Your task to perform on an android device: Open display settings Image 0: 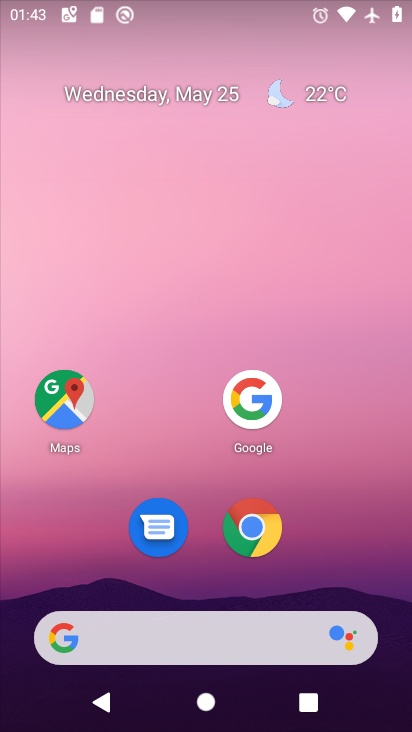
Step 0: press home button
Your task to perform on an android device: Open display settings Image 1: 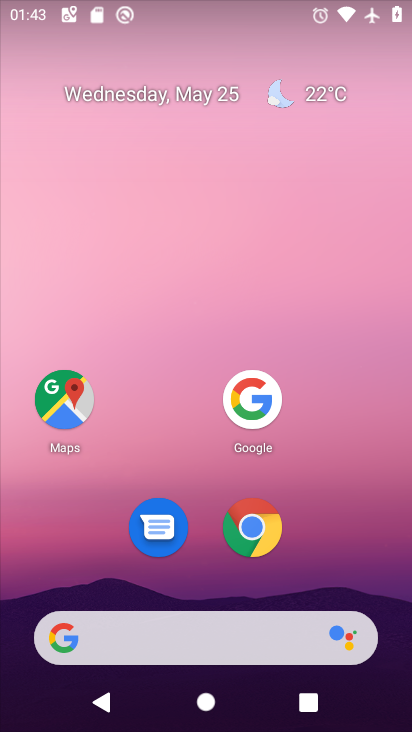
Step 1: drag from (185, 622) to (321, 148)
Your task to perform on an android device: Open display settings Image 2: 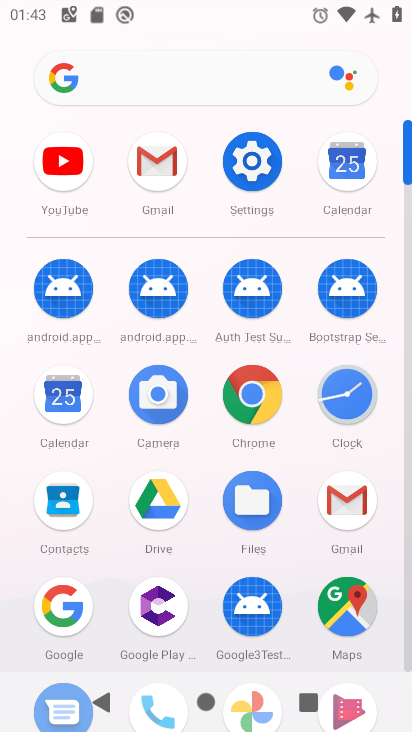
Step 2: click (260, 175)
Your task to perform on an android device: Open display settings Image 3: 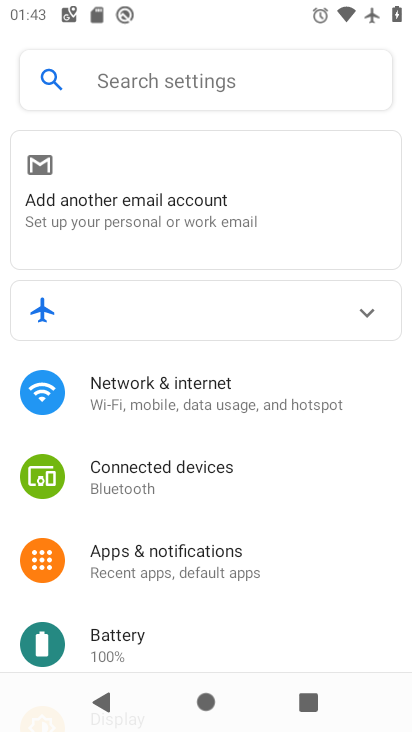
Step 3: drag from (160, 626) to (335, 143)
Your task to perform on an android device: Open display settings Image 4: 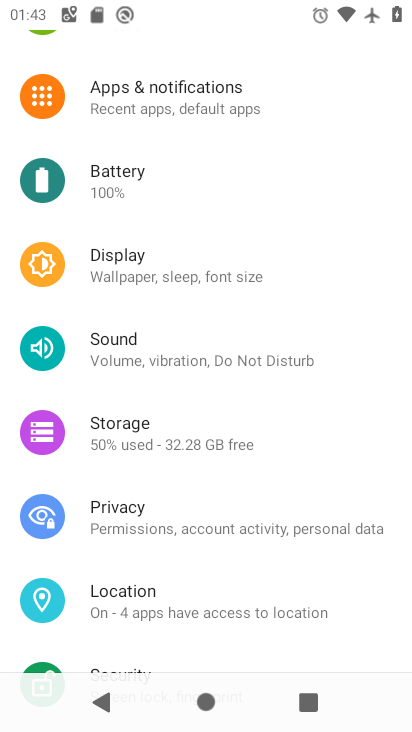
Step 4: click (143, 267)
Your task to perform on an android device: Open display settings Image 5: 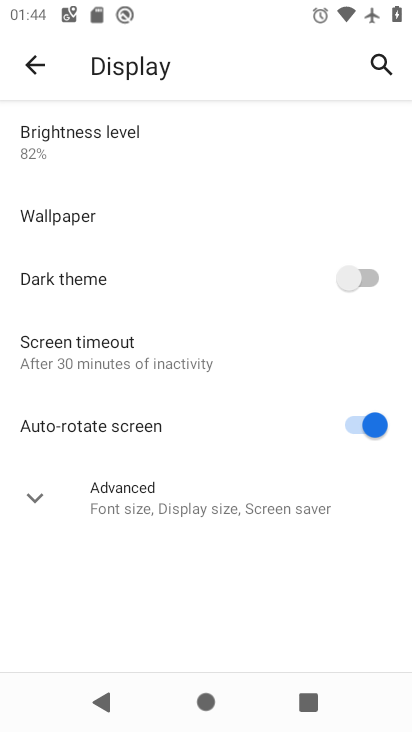
Step 5: task complete